Your task to perform on an android device: Is it going to rain today? Image 0: 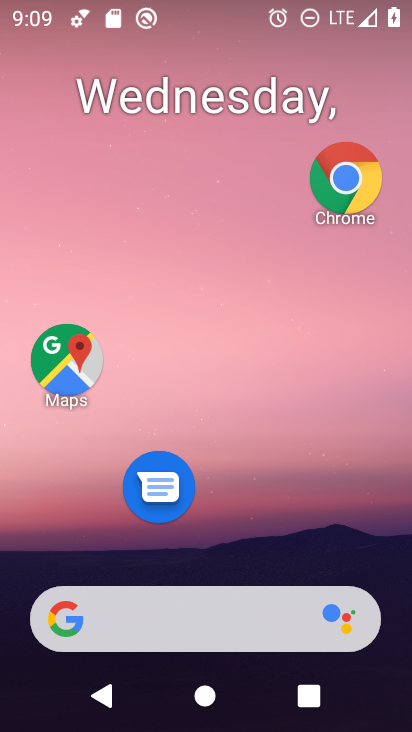
Step 0: drag from (179, 609) to (206, 227)
Your task to perform on an android device: Is it going to rain today? Image 1: 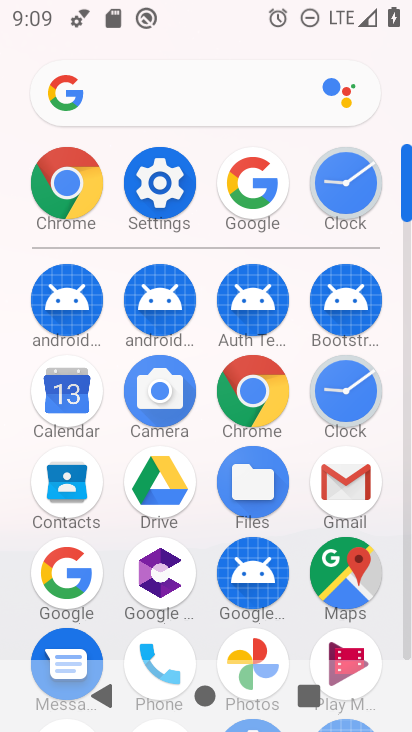
Step 1: drag from (194, 546) to (221, 294)
Your task to perform on an android device: Is it going to rain today? Image 2: 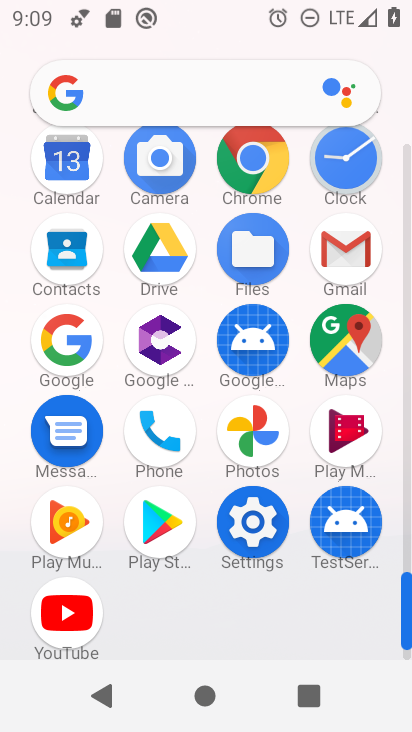
Step 2: click (89, 346)
Your task to perform on an android device: Is it going to rain today? Image 3: 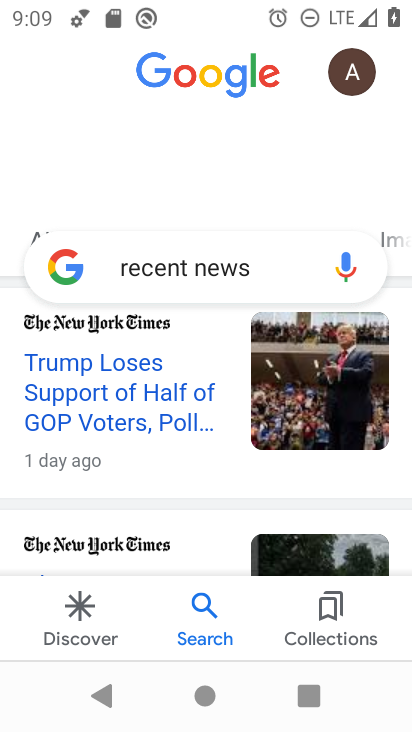
Step 3: click (273, 276)
Your task to perform on an android device: Is it going to rain today? Image 4: 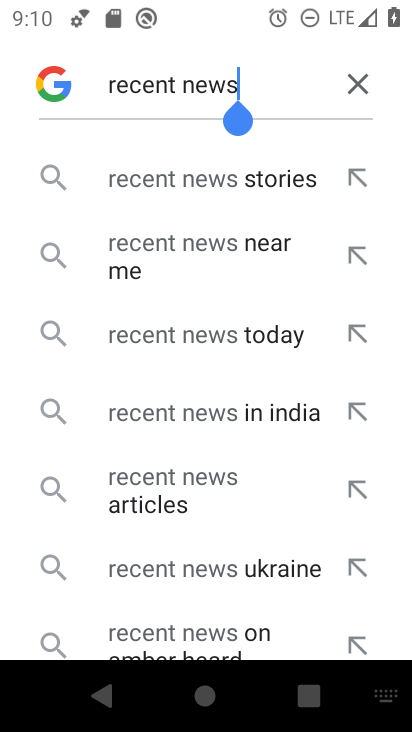
Step 4: click (364, 90)
Your task to perform on an android device: Is it going to rain today? Image 5: 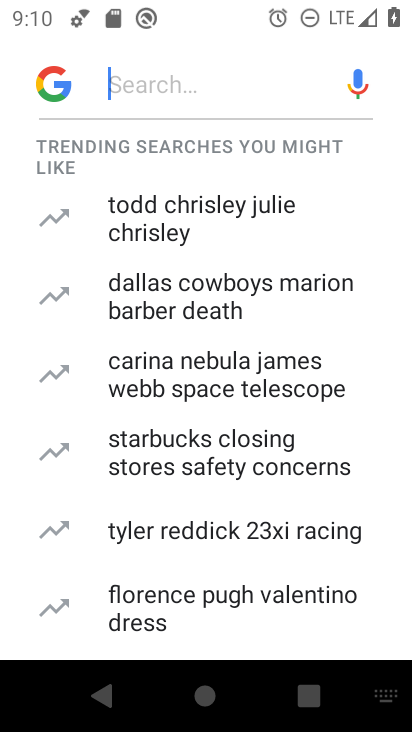
Step 5: type "weather"
Your task to perform on an android device: Is it going to rain today? Image 6: 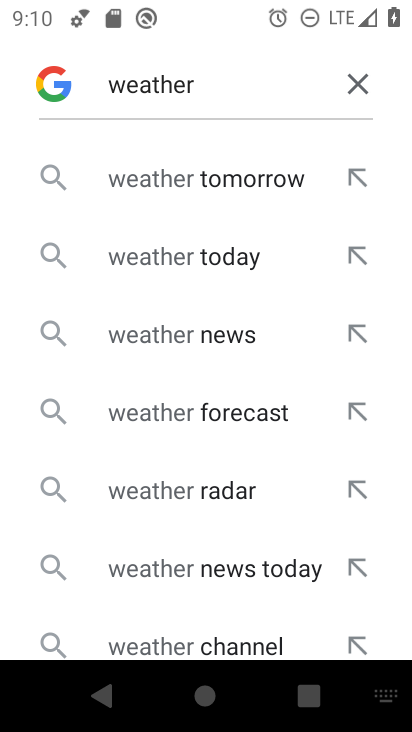
Step 6: click (169, 250)
Your task to perform on an android device: Is it going to rain today? Image 7: 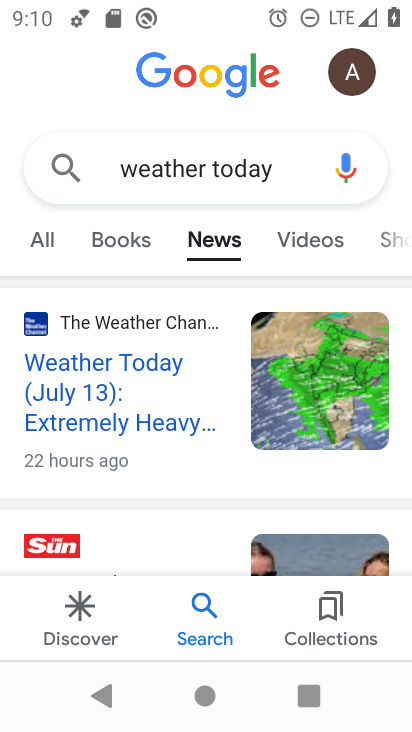
Step 7: click (54, 242)
Your task to perform on an android device: Is it going to rain today? Image 8: 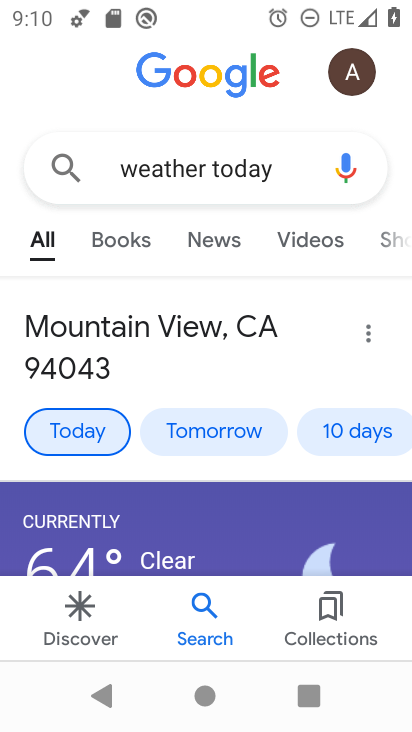
Step 8: task complete